Your task to perform on an android device: Turn off the flashlight Image 0: 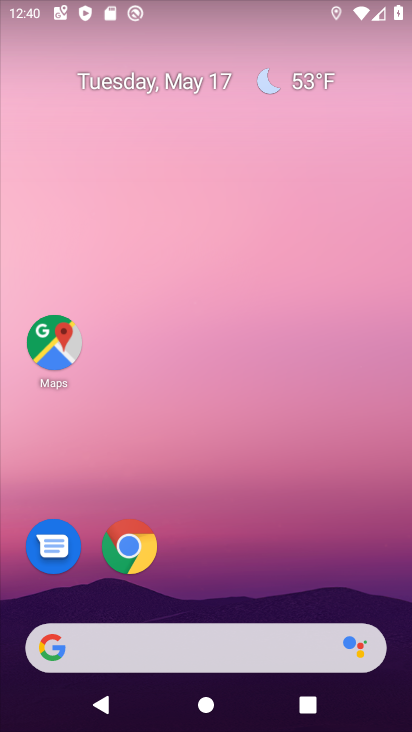
Step 0: drag from (211, 583) to (235, 145)
Your task to perform on an android device: Turn off the flashlight Image 1: 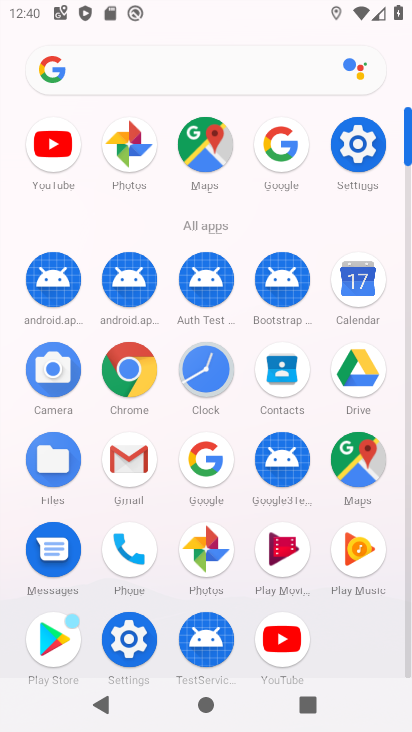
Step 1: click (378, 126)
Your task to perform on an android device: Turn off the flashlight Image 2: 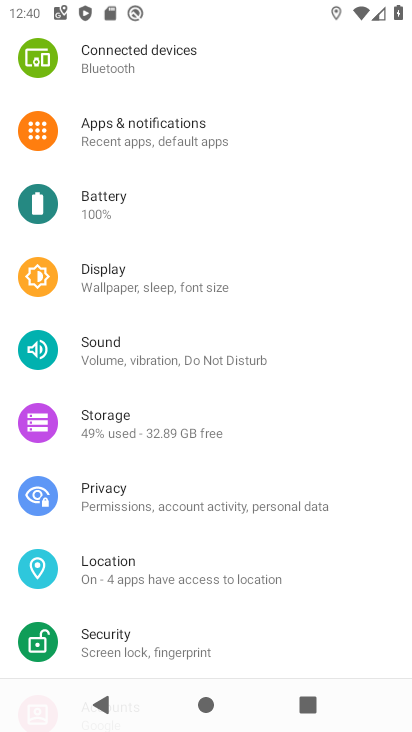
Step 2: drag from (172, 170) to (172, 448)
Your task to perform on an android device: Turn off the flashlight Image 3: 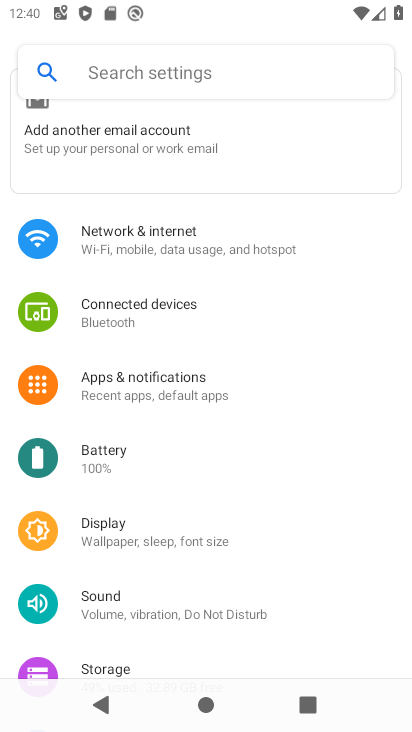
Step 3: click (115, 521)
Your task to perform on an android device: Turn off the flashlight Image 4: 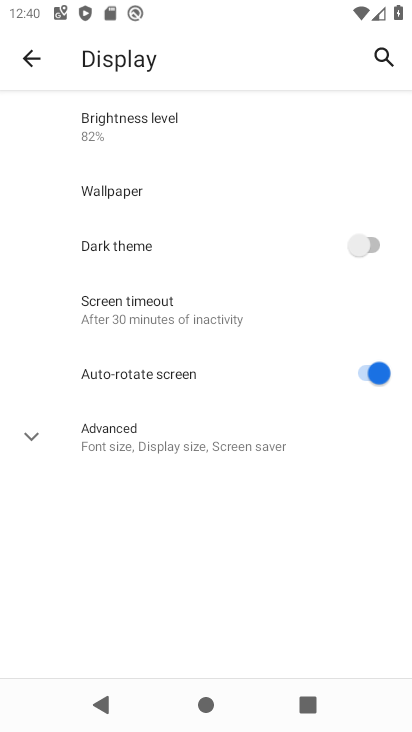
Step 4: task complete